Your task to perform on an android device: set default search engine in the chrome app Image 0: 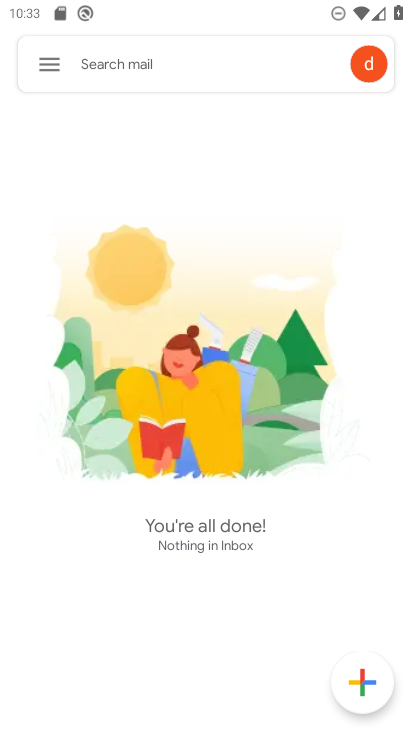
Step 0: press home button
Your task to perform on an android device: set default search engine in the chrome app Image 1: 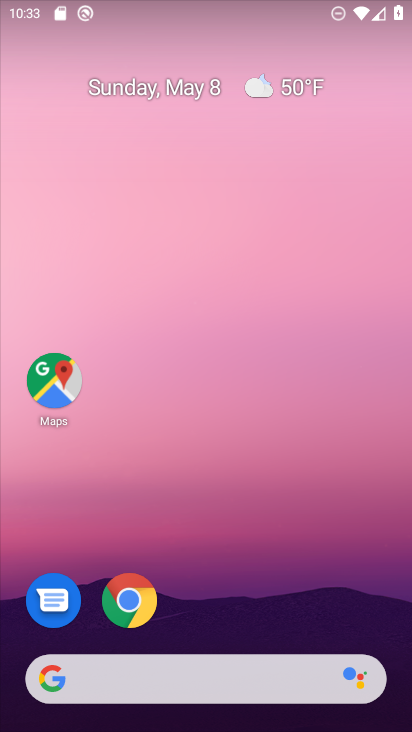
Step 1: click (139, 599)
Your task to perform on an android device: set default search engine in the chrome app Image 2: 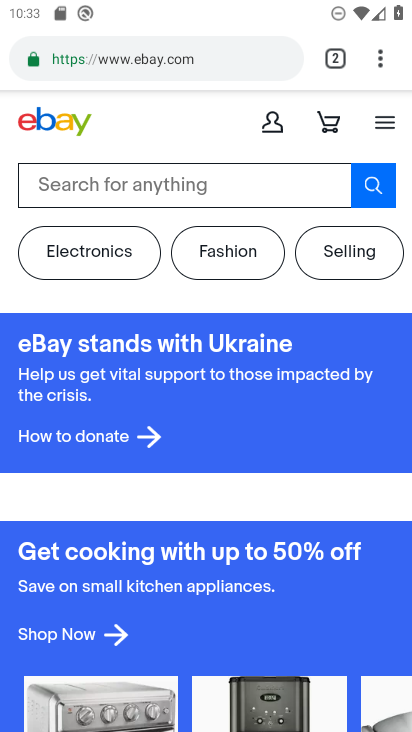
Step 2: click (380, 67)
Your task to perform on an android device: set default search engine in the chrome app Image 3: 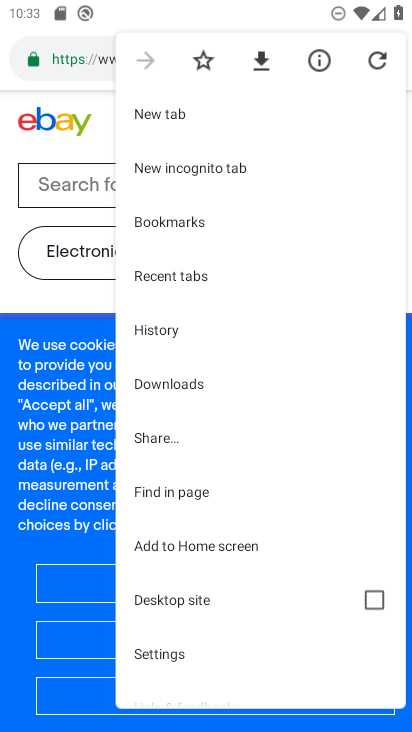
Step 3: click (168, 652)
Your task to perform on an android device: set default search engine in the chrome app Image 4: 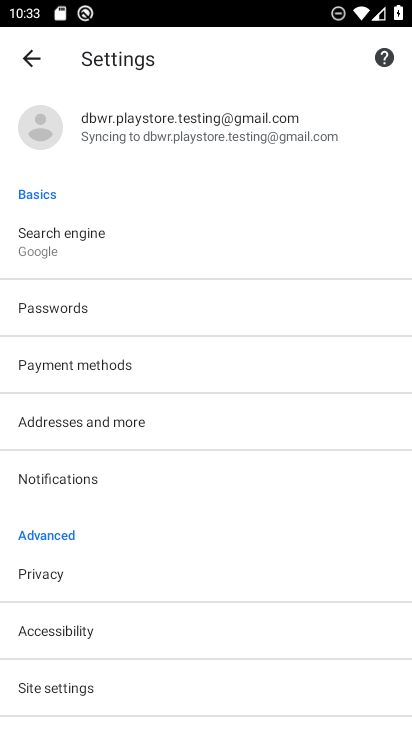
Step 4: click (57, 237)
Your task to perform on an android device: set default search engine in the chrome app Image 5: 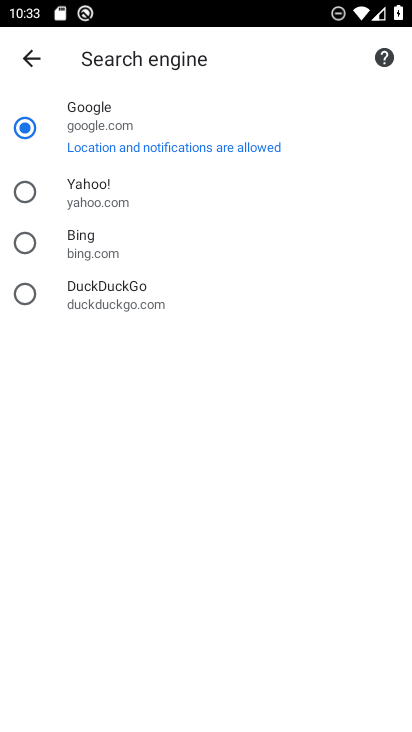
Step 5: click (21, 188)
Your task to perform on an android device: set default search engine in the chrome app Image 6: 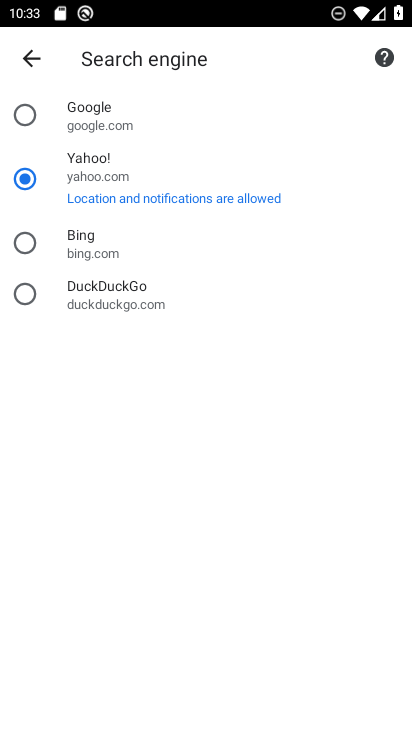
Step 6: task complete